Your task to perform on an android device: change notifications settings Image 0: 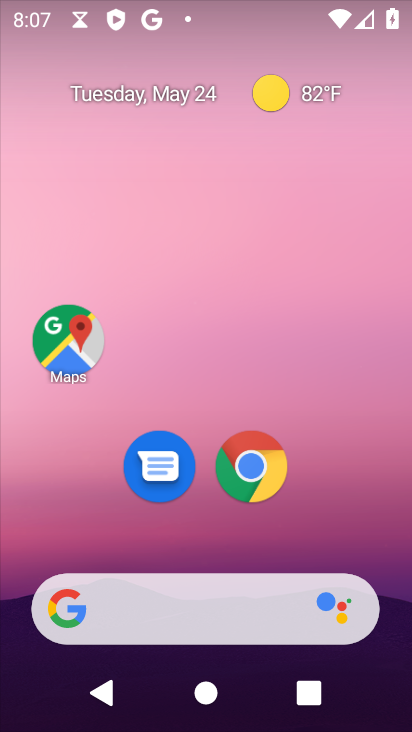
Step 0: drag from (178, 586) to (300, 19)
Your task to perform on an android device: change notifications settings Image 1: 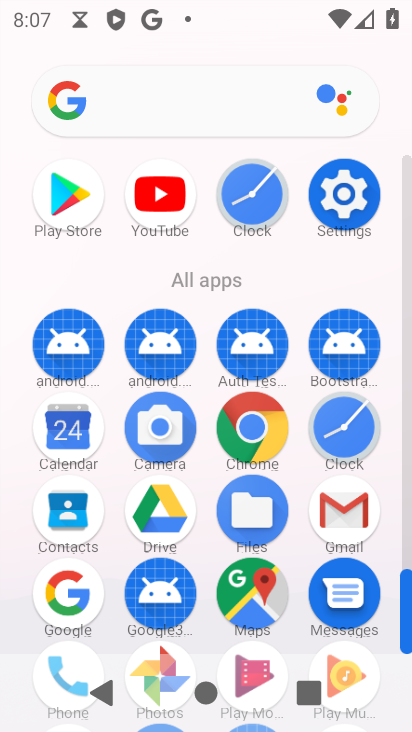
Step 1: click (348, 203)
Your task to perform on an android device: change notifications settings Image 2: 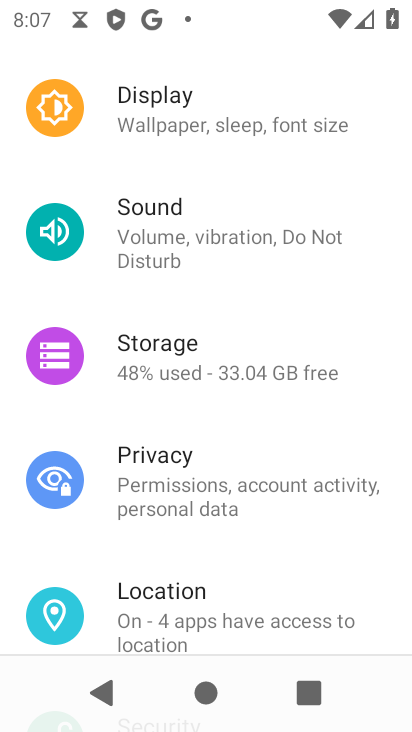
Step 2: drag from (238, 122) to (190, 484)
Your task to perform on an android device: change notifications settings Image 3: 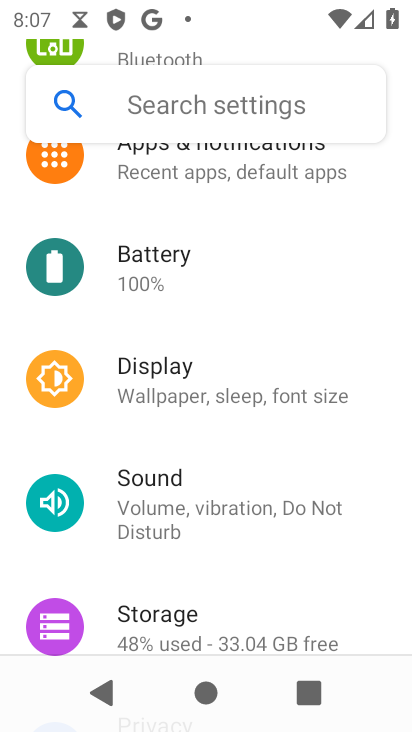
Step 3: click (253, 160)
Your task to perform on an android device: change notifications settings Image 4: 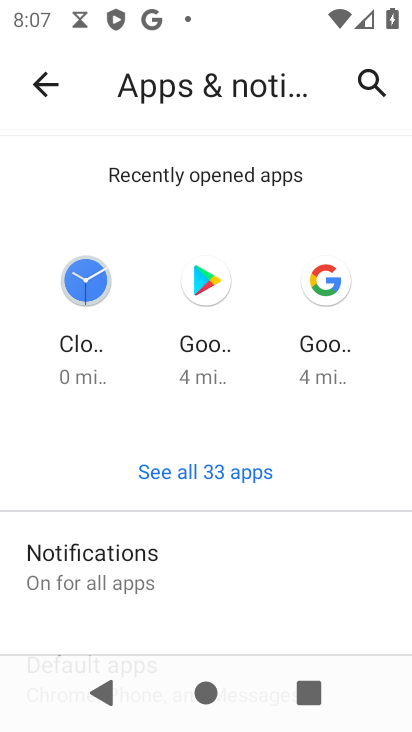
Step 4: click (66, 574)
Your task to perform on an android device: change notifications settings Image 5: 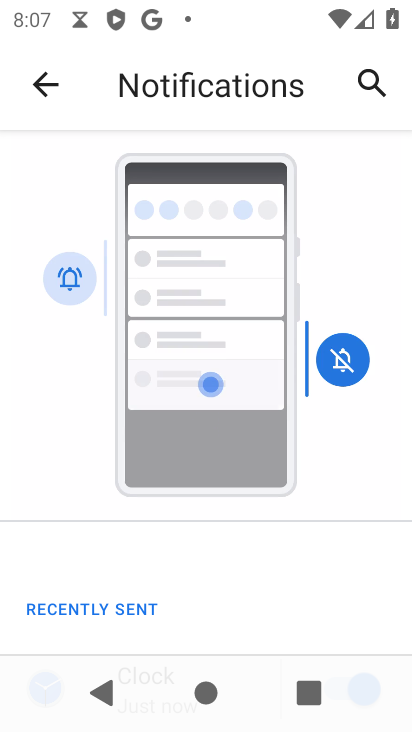
Step 5: drag from (232, 607) to (355, 161)
Your task to perform on an android device: change notifications settings Image 6: 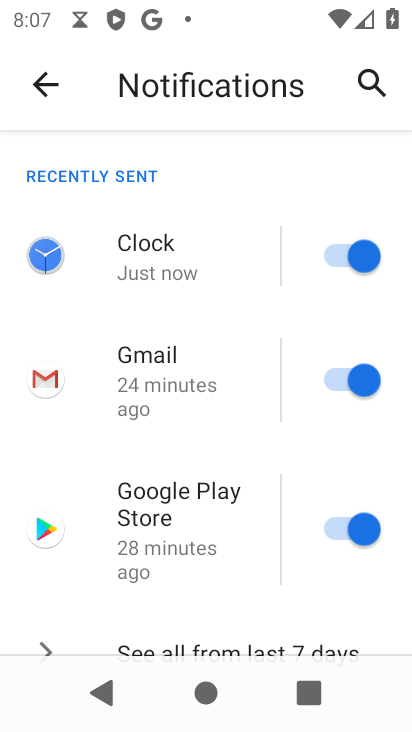
Step 6: click (343, 253)
Your task to perform on an android device: change notifications settings Image 7: 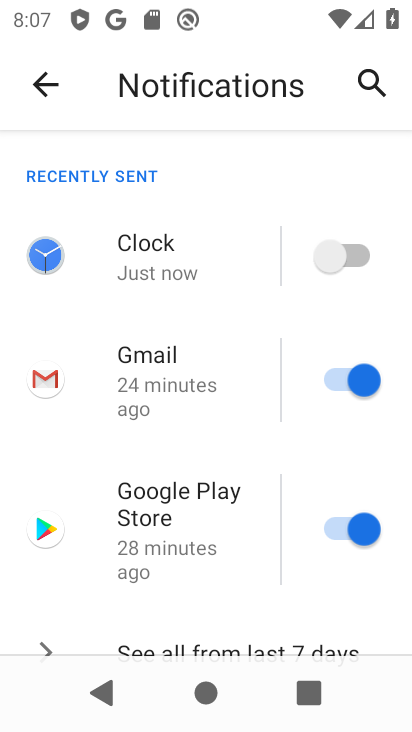
Step 7: click (338, 382)
Your task to perform on an android device: change notifications settings Image 8: 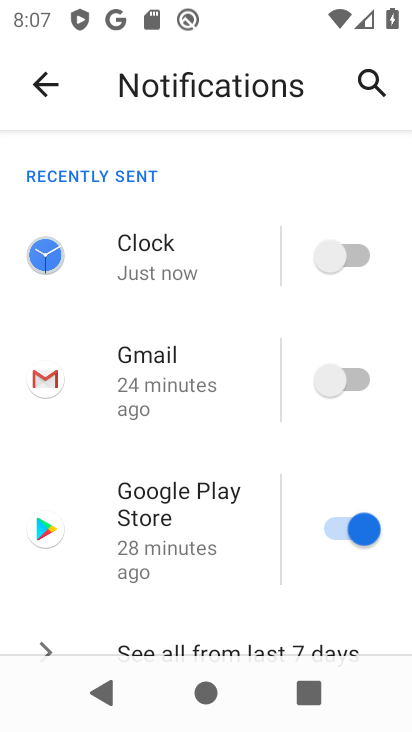
Step 8: click (345, 523)
Your task to perform on an android device: change notifications settings Image 9: 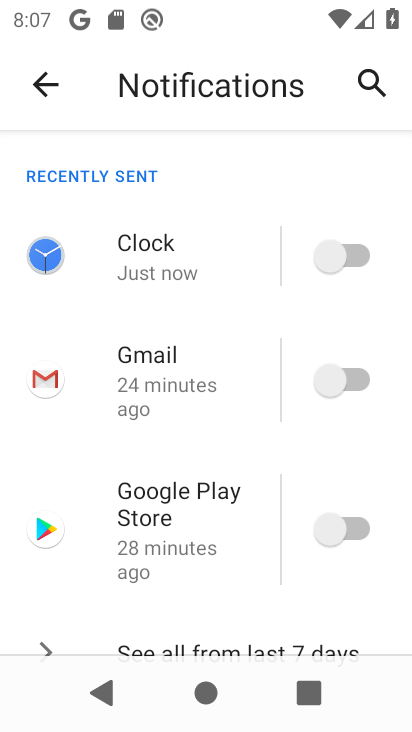
Step 9: drag from (259, 606) to (301, 235)
Your task to perform on an android device: change notifications settings Image 10: 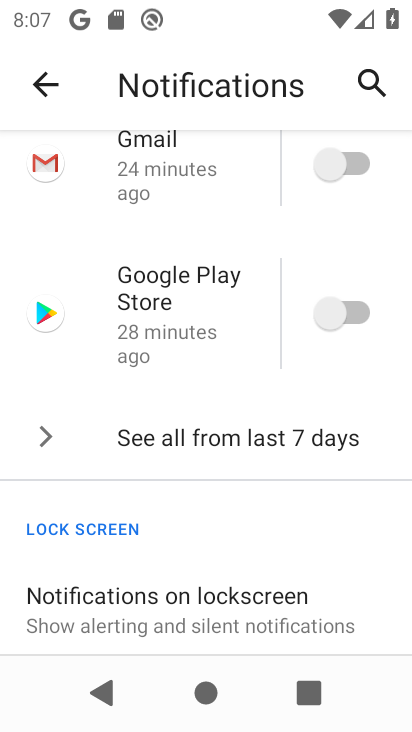
Step 10: click (309, 450)
Your task to perform on an android device: change notifications settings Image 11: 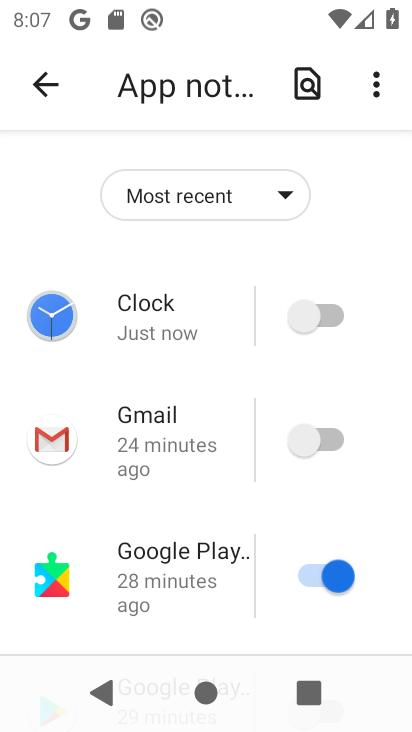
Step 11: click (305, 569)
Your task to perform on an android device: change notifications settings Image 12: 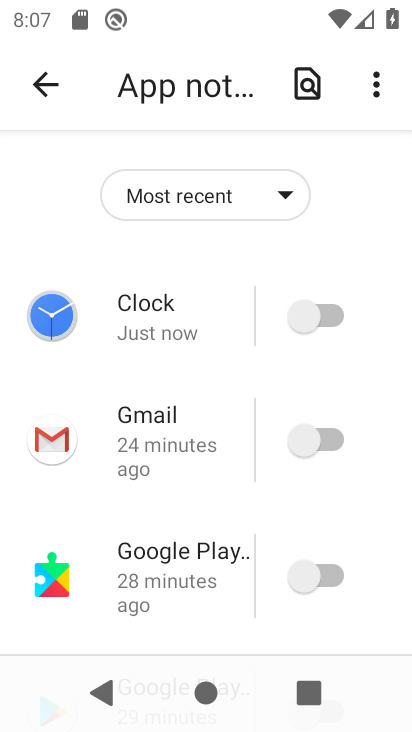
Step 12: drag from (154, 613) to (185, 262)
Your task to perform on an android device: change notifications settings Image 13: 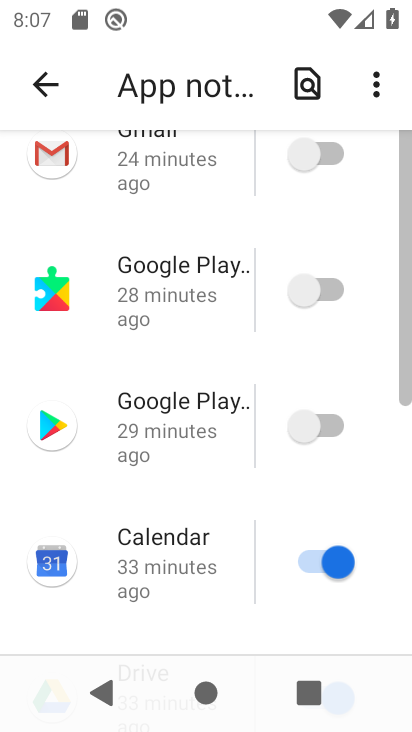
Step 13: click (302, 560)
Your task to perform on an android device: change notifications settings Image 14: 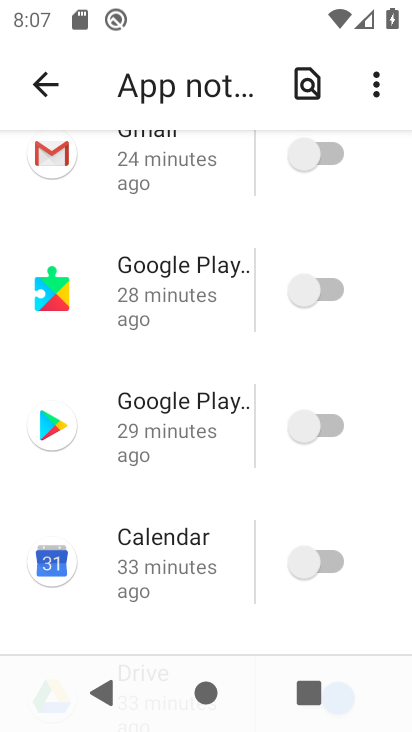
Step 14: drag from (235, 604) to (248, 190)
Your task to perform on an android device: change notifications settings Image 15: 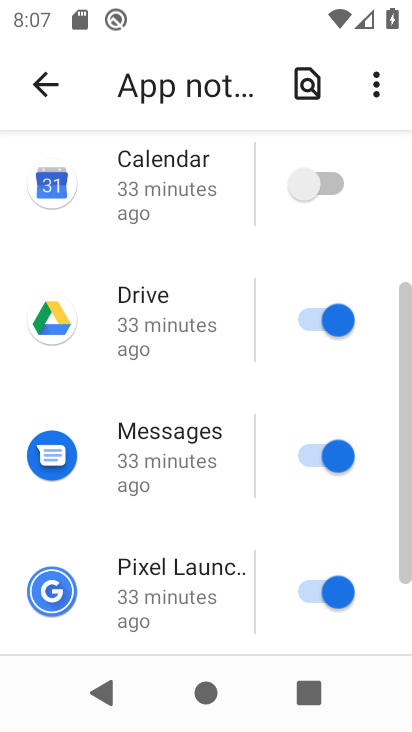
Step 15: click (310, 595)
Your task to perform on an android device: change notifications settings Image 16: 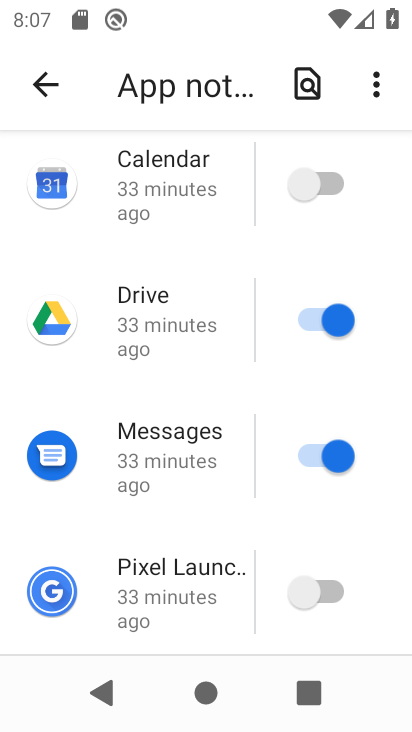
Step 16: click (315, 449)
Your task to perform on an android device: change notifications settings Image 17: 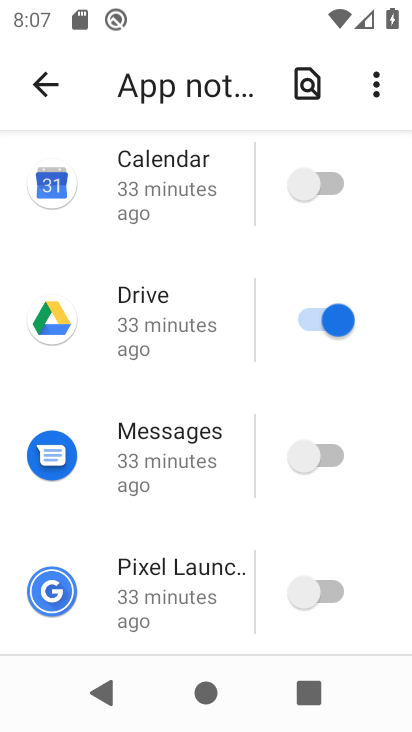
Step 17: click (318, 308)
Your task to perform on an android device: change notifications settings Image 18: 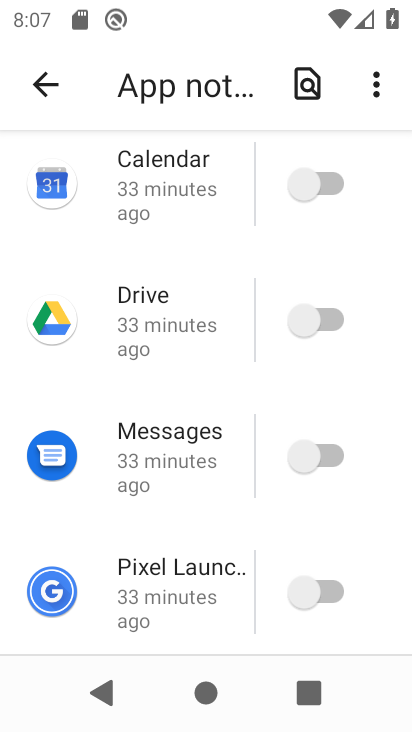
Step 18: drag from (196, 590) to (218, 282)
Your task to perform on an android device: change notifications settings Image 19: 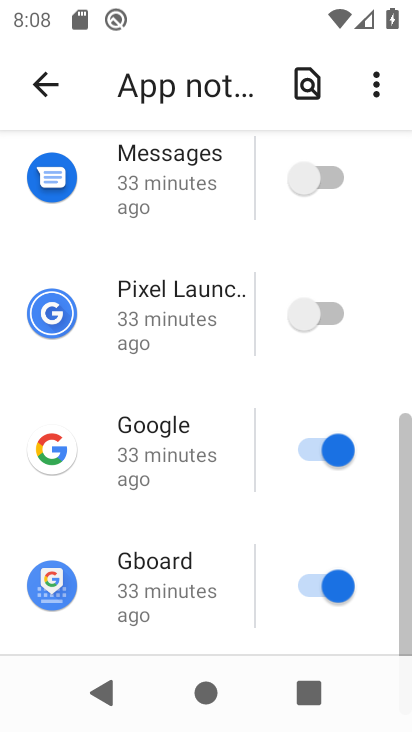
Step 19: click (310, 448)
Your task to perform on an android device: change notifications settings Image 20: 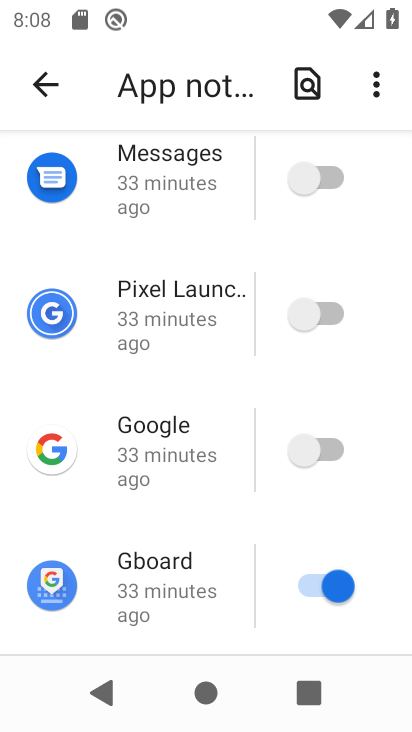
Step 20: click (311, 581)
Your task to perform on an android device: change notifications settings Image 21: 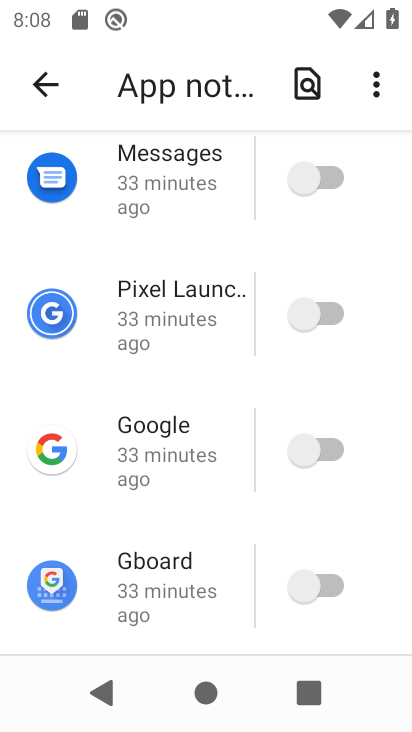
Step 21: task complete